Your task to perform on an android device: Open the map Image 0: 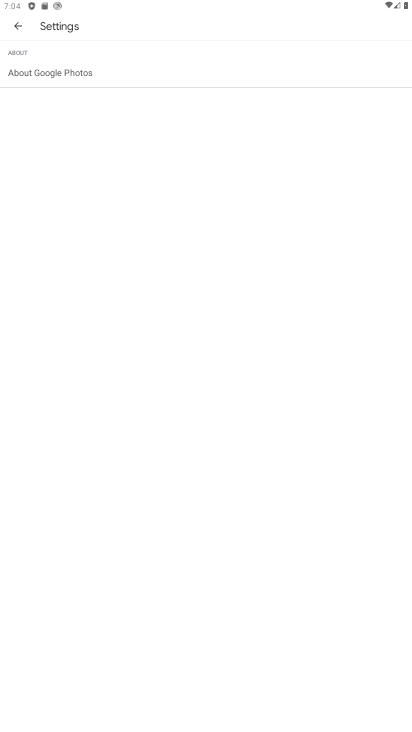
Step 0: press home button
Your task to perform on an android device: Open the map Image 1: 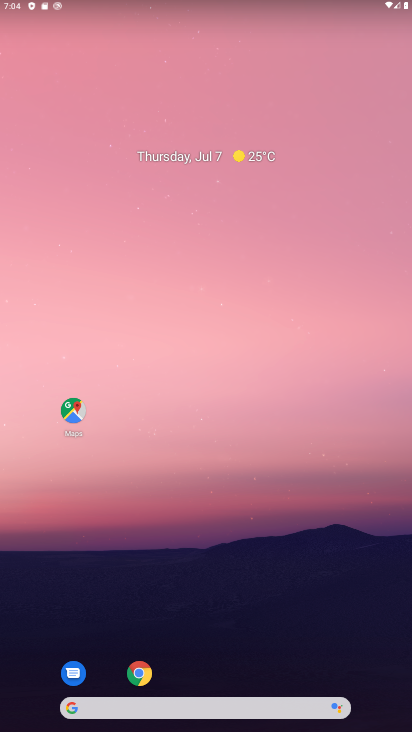
Step 1: click (84, 408)
Your task to perform on an android device: Open the map Image 2: 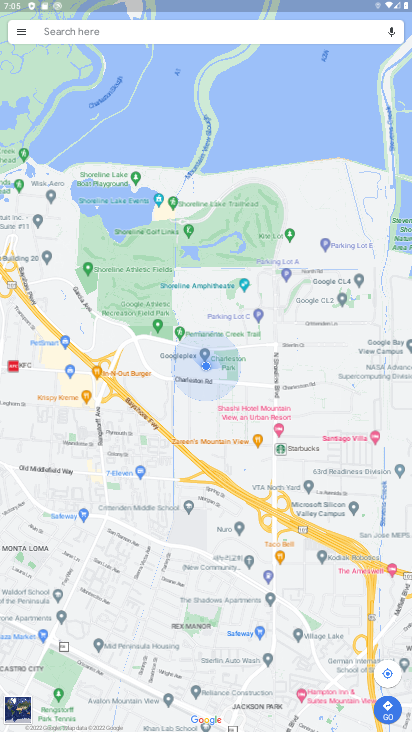
Step 2: task complete